Your task to perform on an android device: change the upload size in google photos Image 0: 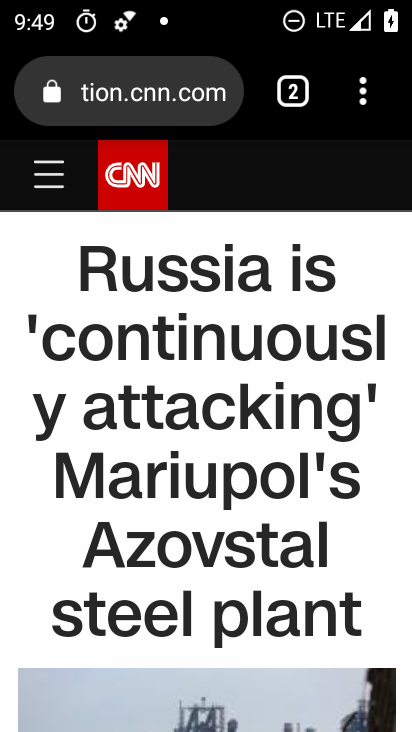
Step 0: press home button
Your task to perform on an android device: change the upload size in google photos Image 1: 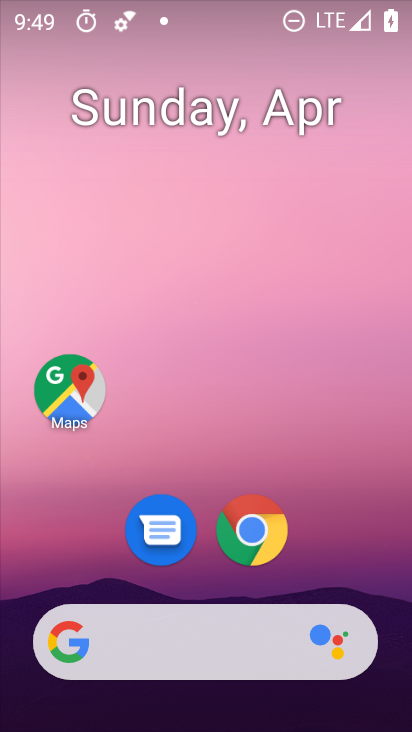
Step 1: drag from (376, 570) to (360, 2)
Your task to perform on an android device: change the upload size in google photos Image 2: 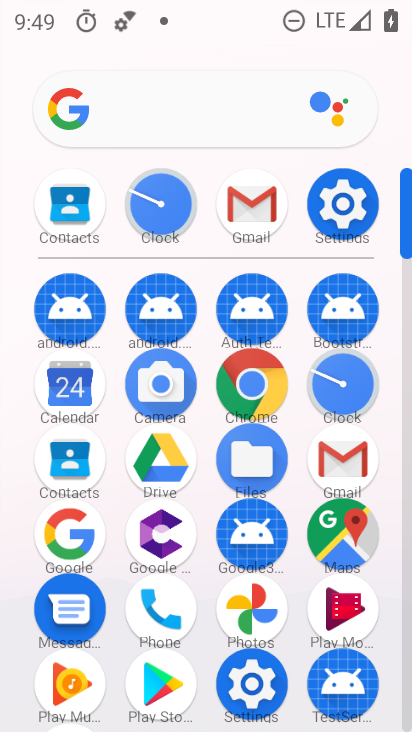
Step 2: click (254, 610)
Your task to perform on an android device: change the upload size in google photos Image 3: 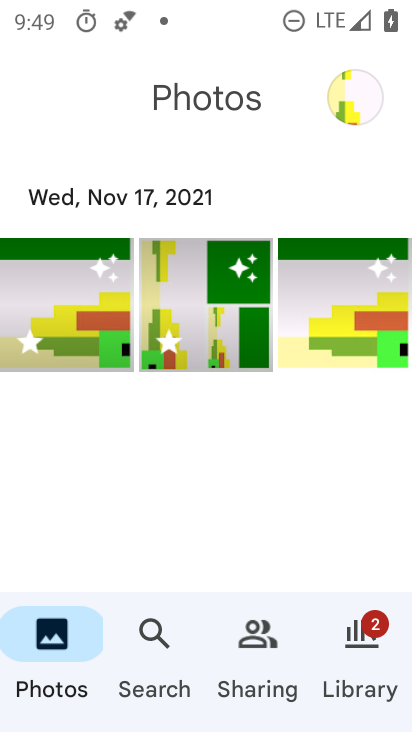
Step 3: click (342, 109)
Your task to perform on an android device: change the upload size in google photos Image 4: 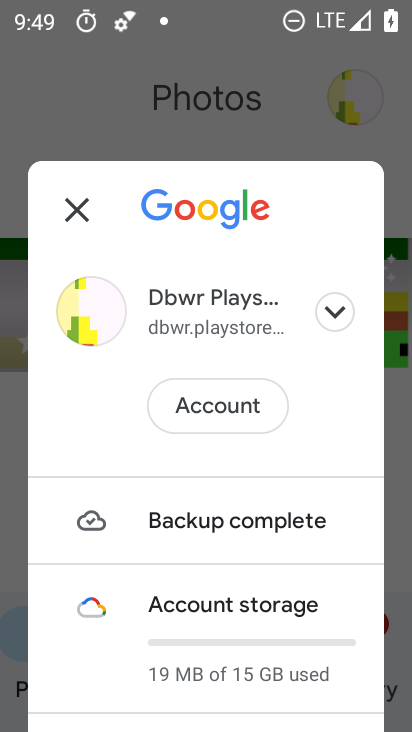
Step 4: drag from (235, 598) to (225, 196)
Your task to perform on an android device: change the upload size in google photos Image 5: 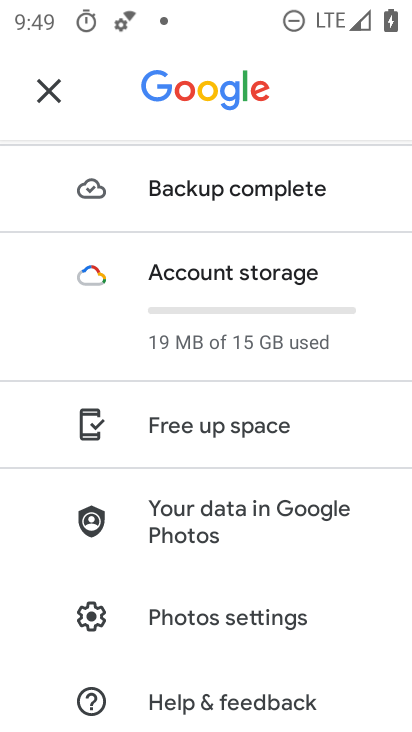
Step 5: click (209, 628)
Your task to perform on an android device: change the upload size in google photos Image 6: 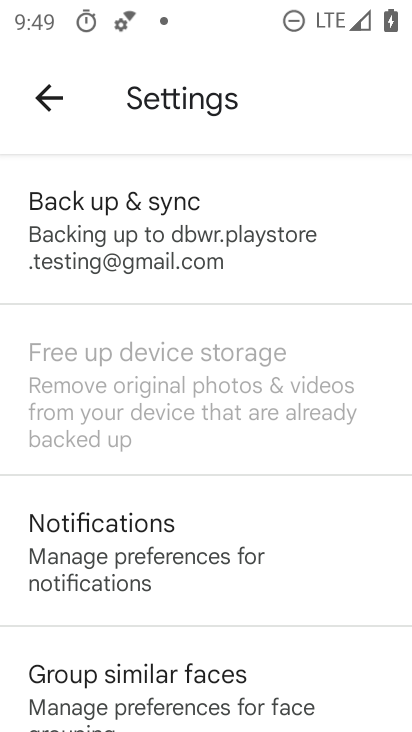
Step 6: click (122, 266)
Your task to perform on an android device: change the upload size in google photos Image 7: 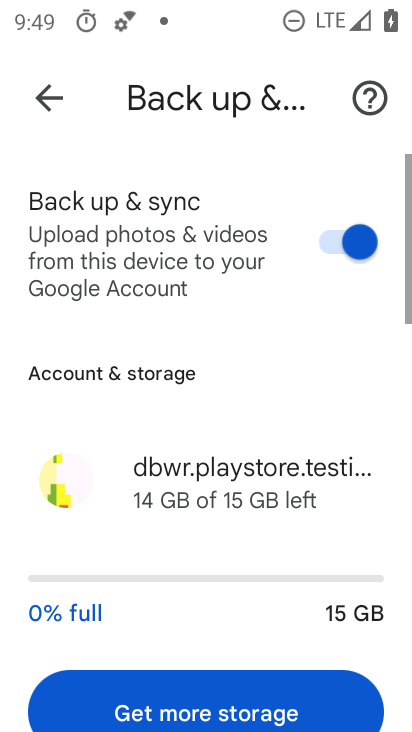
Step 7: drag from (134, 545) to (142, 167)
Your task to perform on an android device: change the upload size in google photos Image 8: 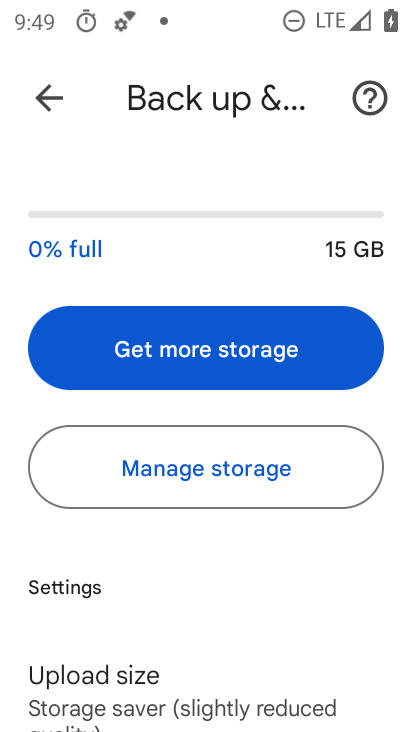
Step 8: drag from (174, 573) to (184, 208)
Your task to perform on an android device: change the upload size in google photos Image 9: 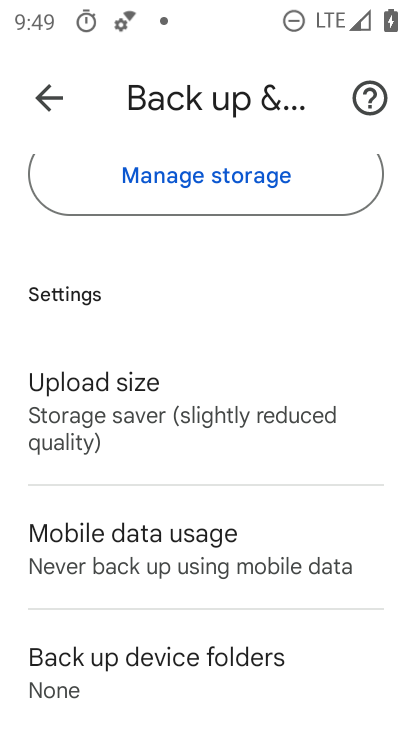
Step 9: click (126, 413)
Your task to perform on an android device: change the upload size in google photos Image 10: 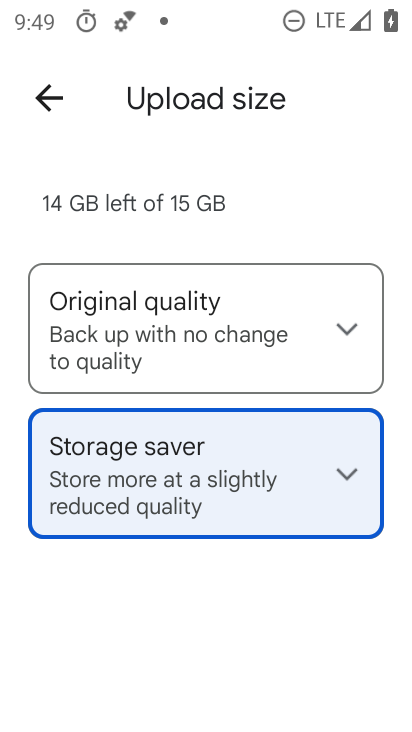
Step 10: click (373, 326)
Your task to perform on an android device: change the upload size in google photos Image 11: 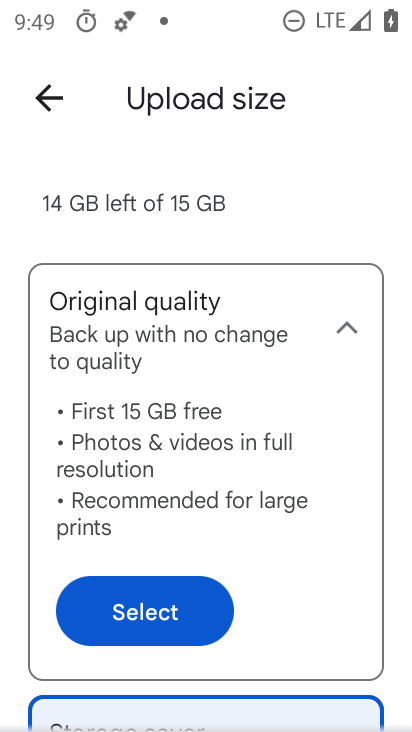
Step 11: click (111, 614)
Your task to perform on an android device: change the upload size in google photos Image 12: 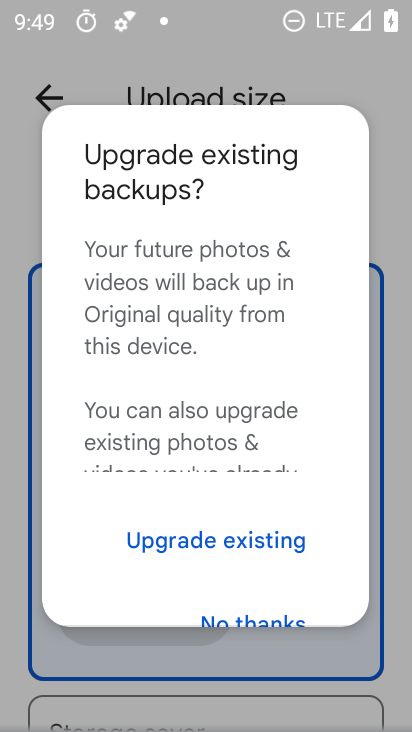
Step 12: click (280, 619)
Your task to perform on an android device: change the upload size in google photos Image 13: 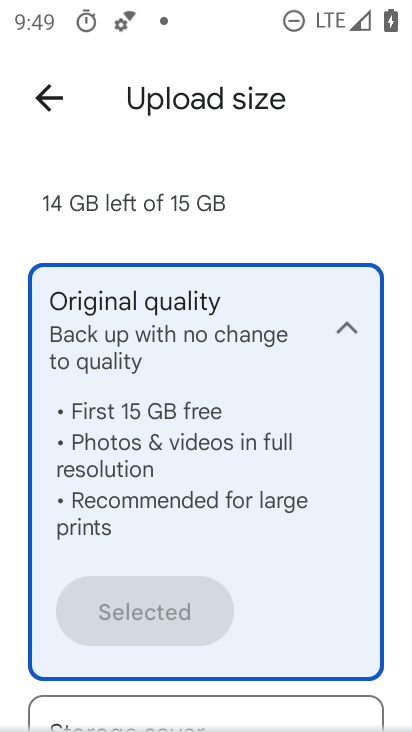
Step 13: task complete